Your task to perform on an android device: Search for Mexican restaurants on Maps Image 0: 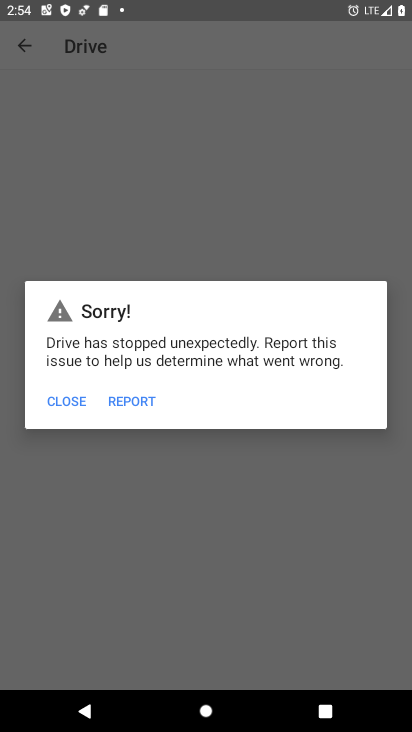
Step 0: press home button
Your task to perform on an android device: Search for Mexican restaurants on Maps Image 1: 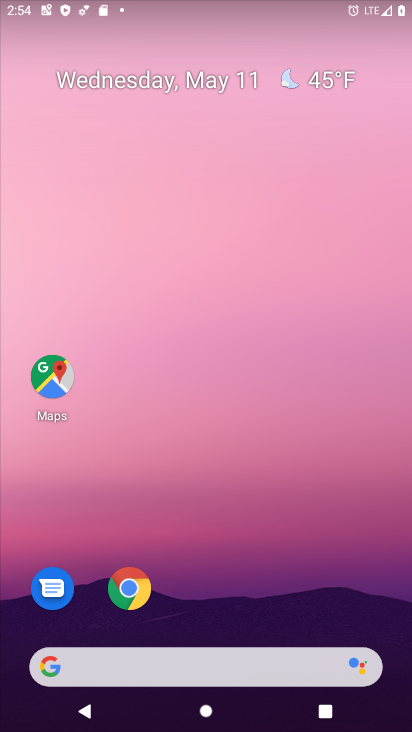
Step 1: click (57, 407)
Your task to perform on an android device: Search for Mexican restaurants on Maps Image 2: 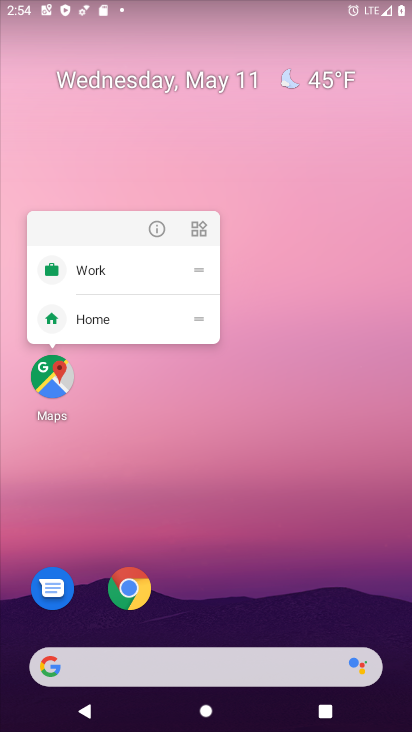
Step 2: click (57, 407)
Your task to perform on an android device: Search for Mexican restaurants on Maps Image 3: 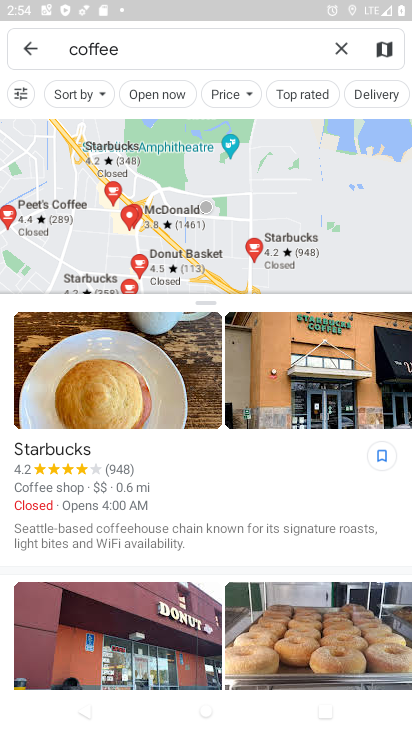
Step 3: click (331, 50)
Your task to perform on an android device: Search for Mexican restaurants on Maps Image 4: 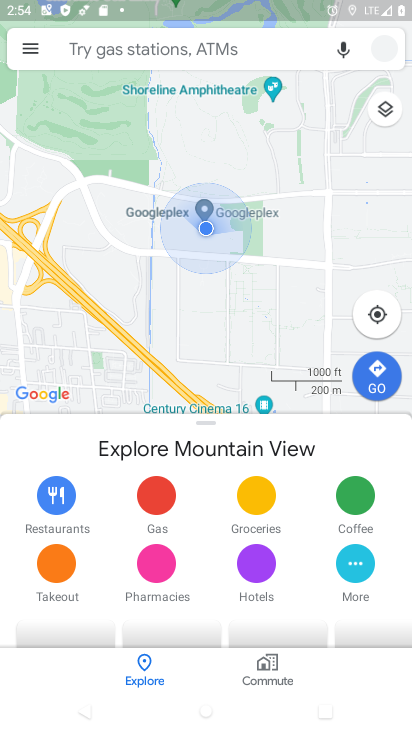
Step 4: click (184, 58)
Your task to perform on an android device: Search for Mexican restaurants on Maps Image 5: 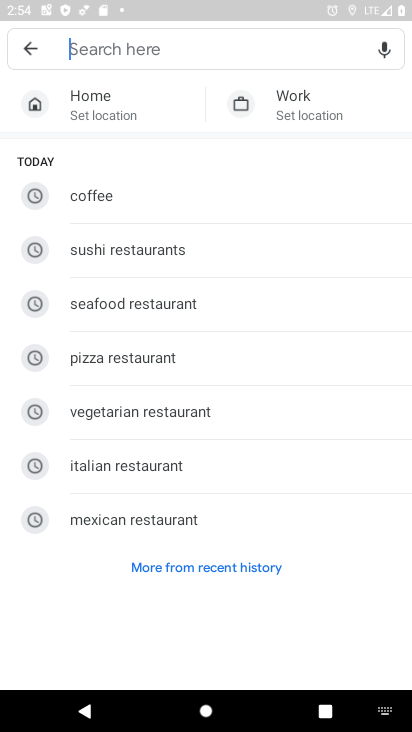
Step 5: type "Mexican restaurants"
Your task to perform on an android device: Search for Mexican restaurants on Maps Image 6: 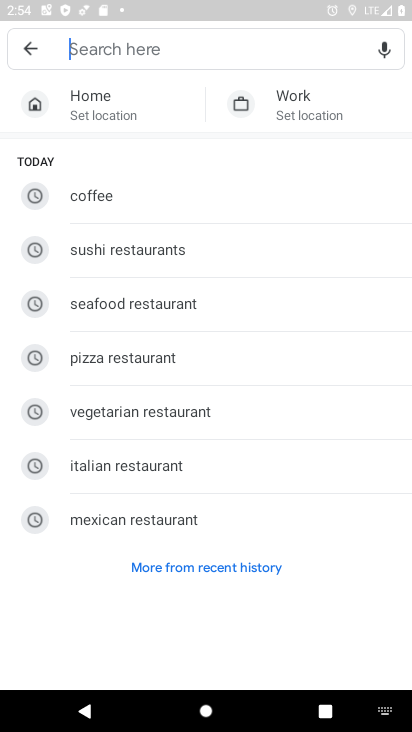
Step 6: click (208, 515)
Your task to perform on an android device: Search for Mexican restaurants on Maps Image 7: 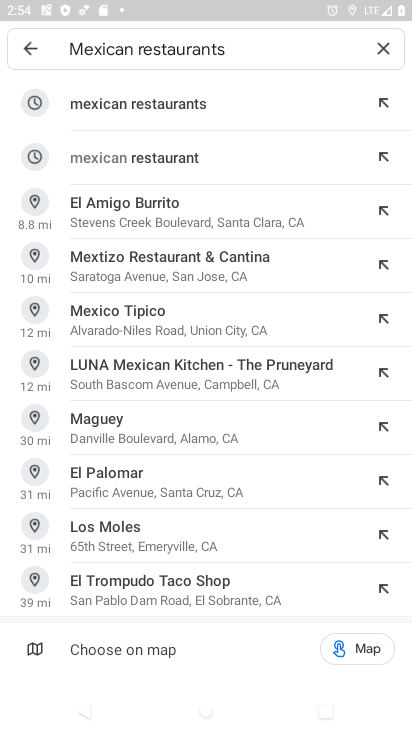
Step 7: click (208, 105)
Your task to perform on an android device: Search for Mexican restaurants on Maps Image 8: 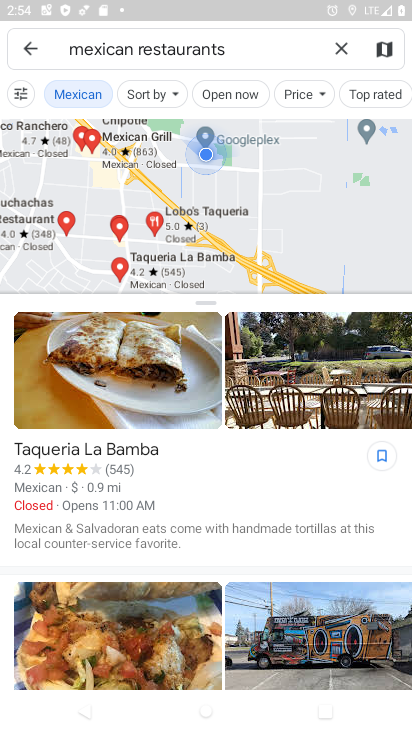
Step 8: task complete